Your task to perform on an android device: change keyboard looks Image 0: 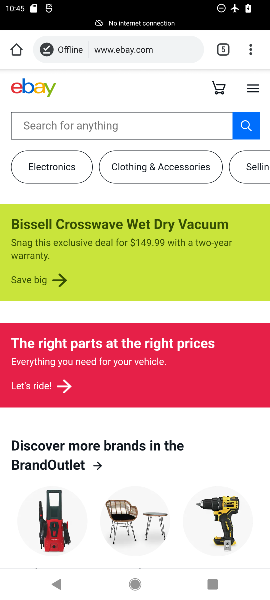
Step 0: press home button
Your task to perform on an android device: change keyboard looks Image 1: 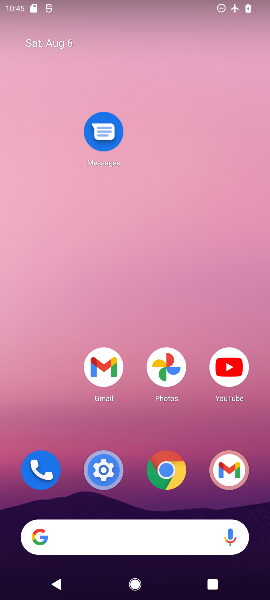
Step 1: drag from (145, 516) to (174, 38)
Your task to perform on an android device: change keyboard looks Image 2: 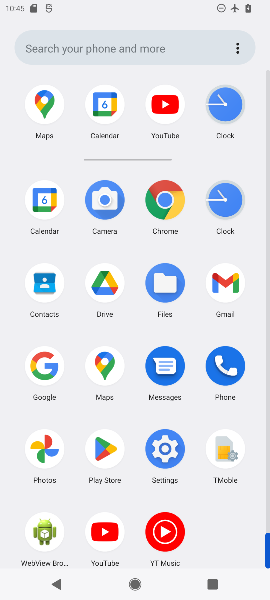
Step 2: click (165, 445)
Your task to perform on an android device: change keyboard looks Image 3: 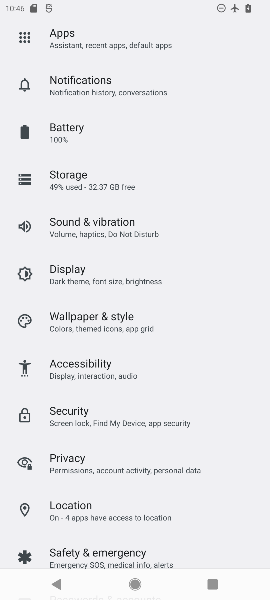
Step 3: drag from (113, 419) to (118, 129)
Your task to perform on an android device: change keyboard looks Image 4: 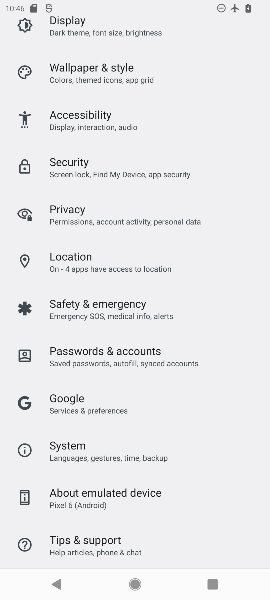
Step 4: click (90, 458)
Your task to perform on an android device: change keyboard looks Image 5: 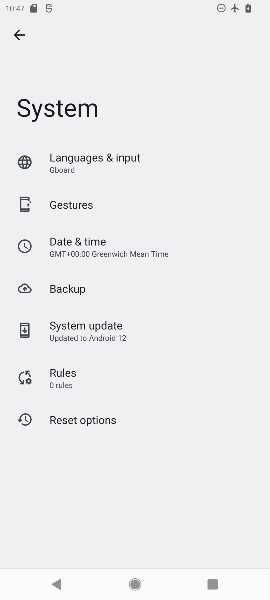
Step 5: click (105, 165)
Your task to perform on an android device: change keyboard looks Image 6: 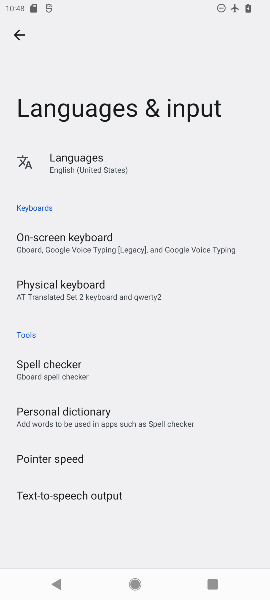
Step 6: click (90, 165)
Your task to perform on an android device: change keyboard looks Image 7: 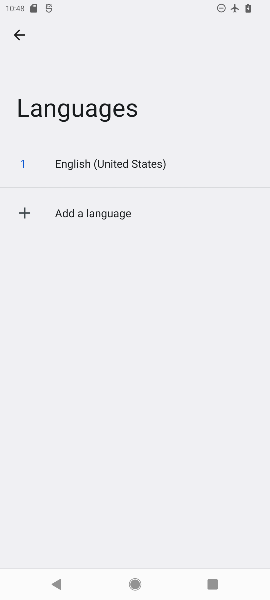
Step 7: task complete